Your task to perform on an android device: add a contact in the contacts app Image 0: 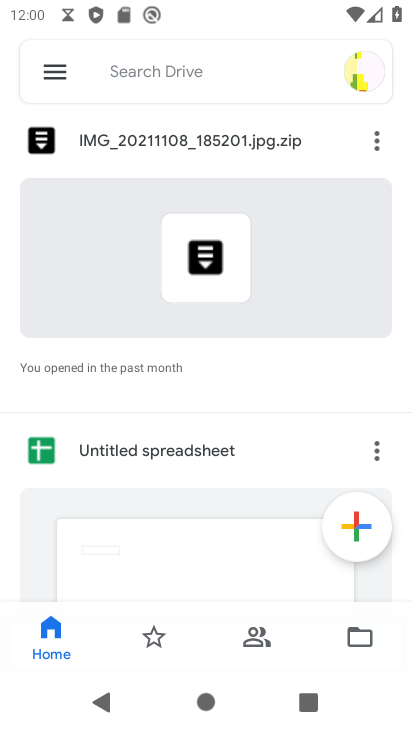
Step 0: press back button
Your task to perform on an android device: add a contact in the contacts app Image 1: 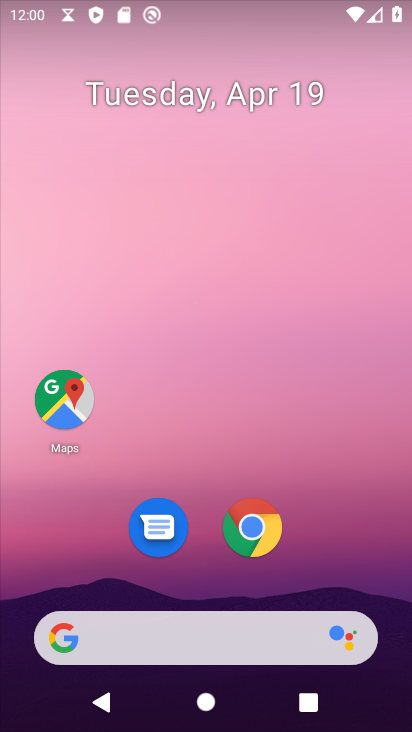
Step 1: drag from (293, 566) to (327, 26)
Your task to perform on an android device: add a contact in the contacts app Image 2: 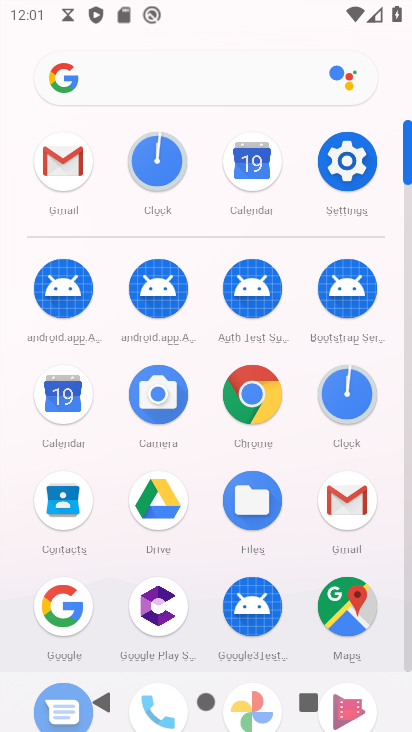
Step 2: click (57, 510)
Your task to perform on an android device: add a contact in the contacts app Image 3: 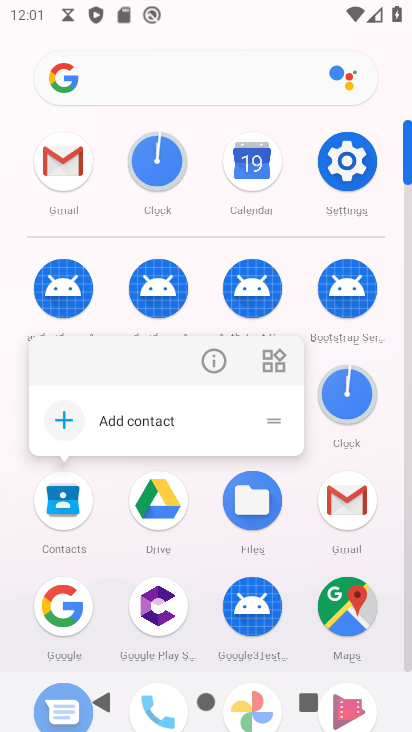
Step 3: click (63, 513)
Your task to perform on an android device: add a contact in the contacts app Image 4: 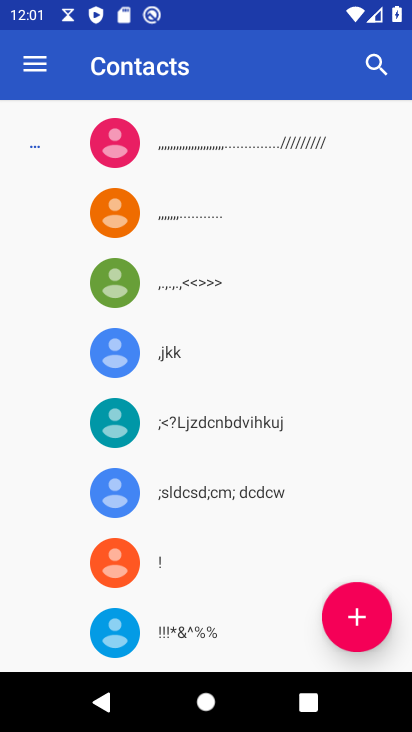
Step 4: click (356, 623)
Your task to perform on an android device: add a contact in the contacts app Image 5: 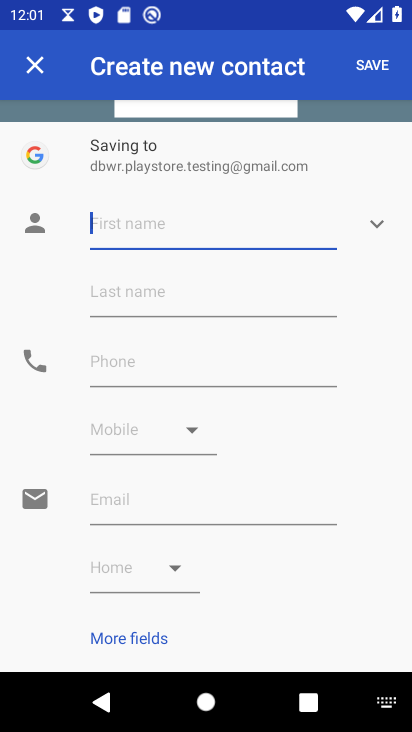
Step 5: type "fghjdsajkl"
Your task to perform on an android device: add a contact in the contacts app Image 6: 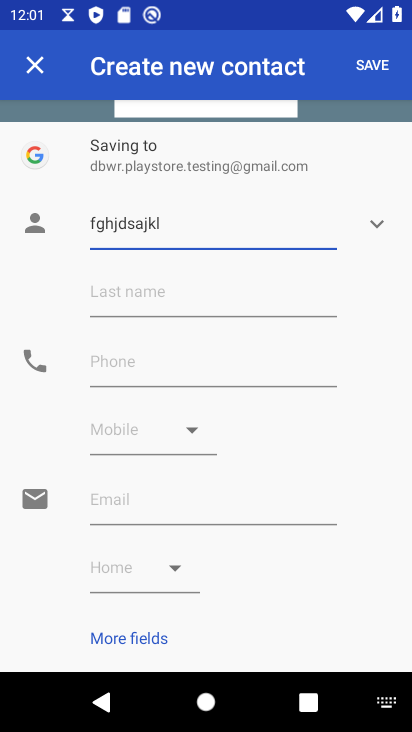
Step 6: click (217, 375)
Your task to perform on an android device: add a contact in the contacts app Image 7: 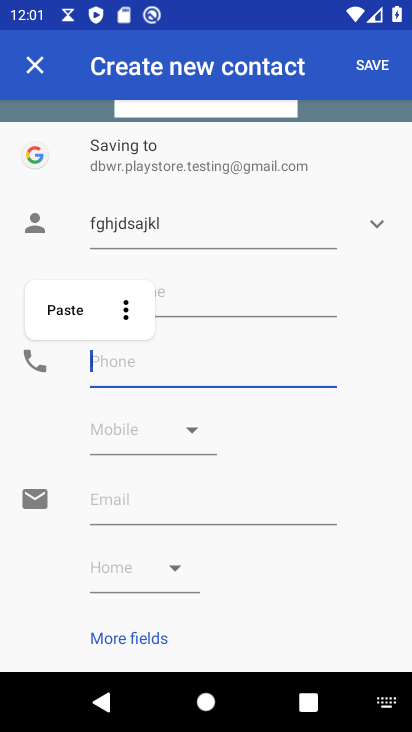
Step 7: type "34543453453"
Your task to perform on an android device: add a contact in the contacts app Image 8: 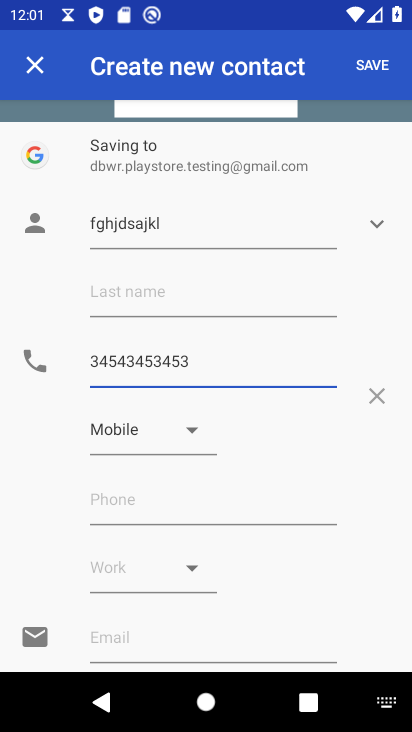
Step 8: click (376, 64)
Your task to perform on an android device: add a contact in the contacts app Image 9: 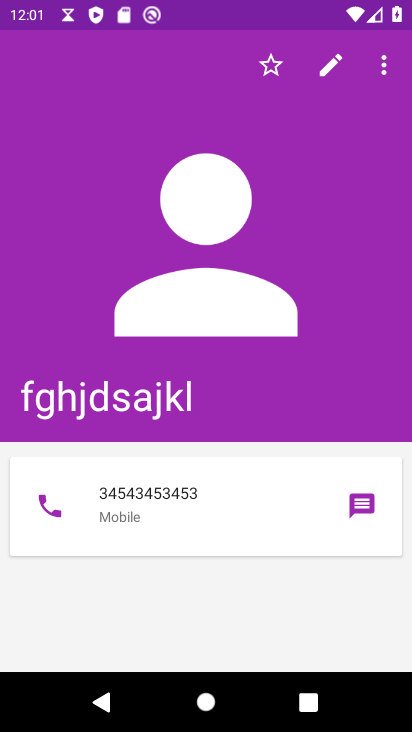
Step 9: task complete